Your task to perform on an android device: Go to network settings Image 0: 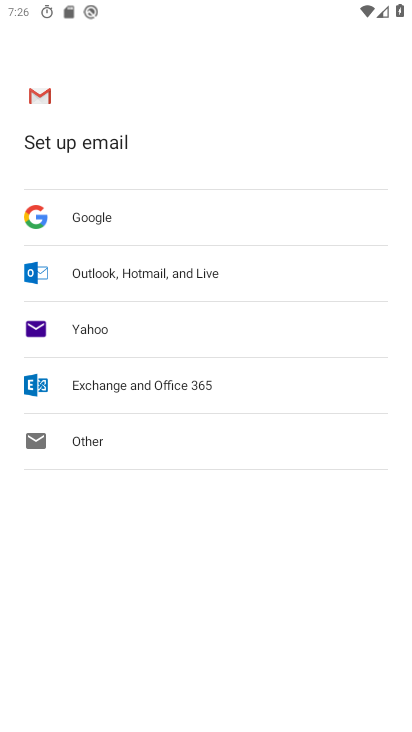
Step 0: press home button
Your task to perform on an android device: Go to network settings Image 1: 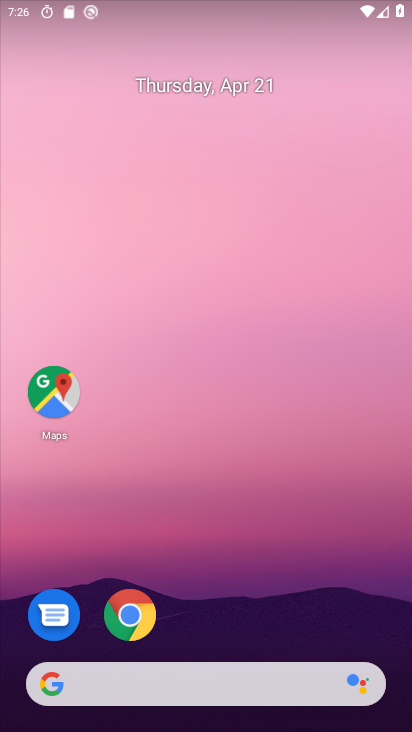
Step 1: drag from (184, 689) to (377, 78)
Your task to perform on an android device: Go to network settings Image 2: 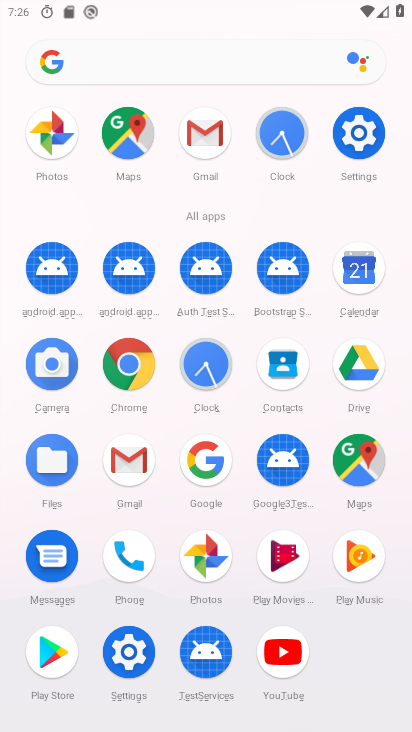
Step 2: click (354, 148)
Your task to perform on an android device: Go to network settings Image 3: 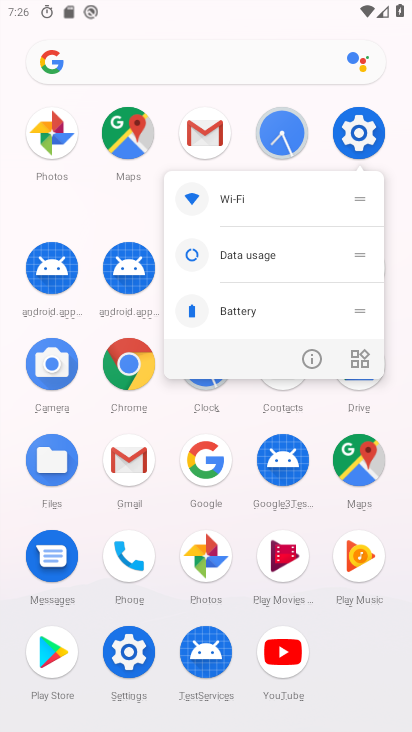
Step 3: click (356, 135)
Your task to perform on an android device: Go to network settings Image 4: 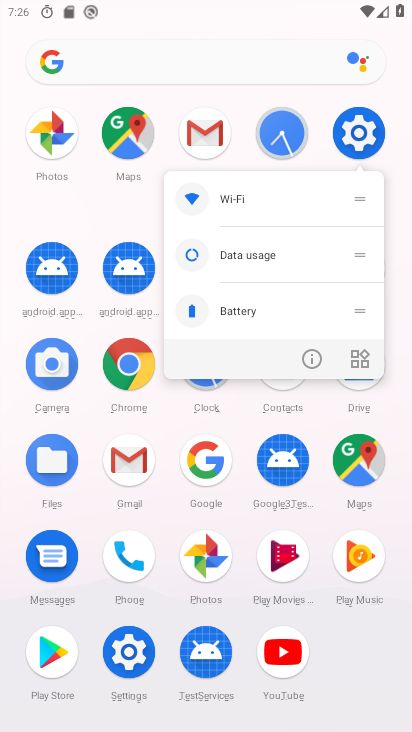
Step 4: click (365, 138)
Your task to perform on an android device: Go to network settings Image 5: 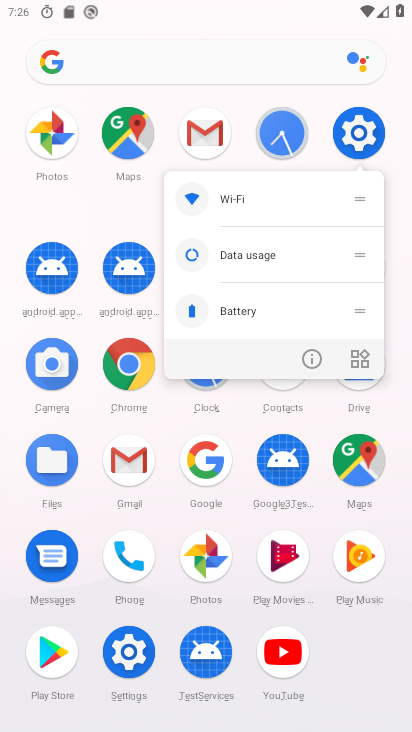
Step 5: click (353, 145)
Your task to perform on an android device: Go to network settings Image 6: 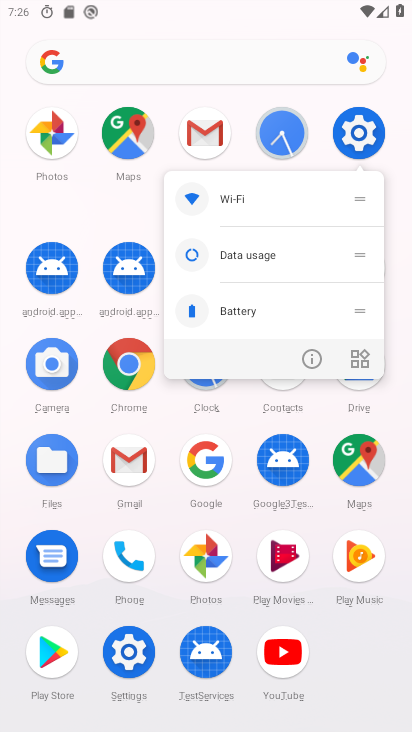
Step 6: click (361, 138)
Your task to perform on an android device: Go to network settings Image 7: 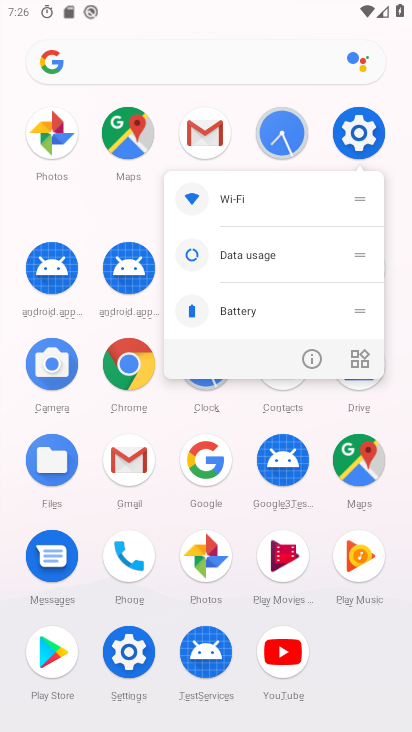
Step 7: click (358, 138)
Your task to perform on an android device: Go to network settings Image 8: 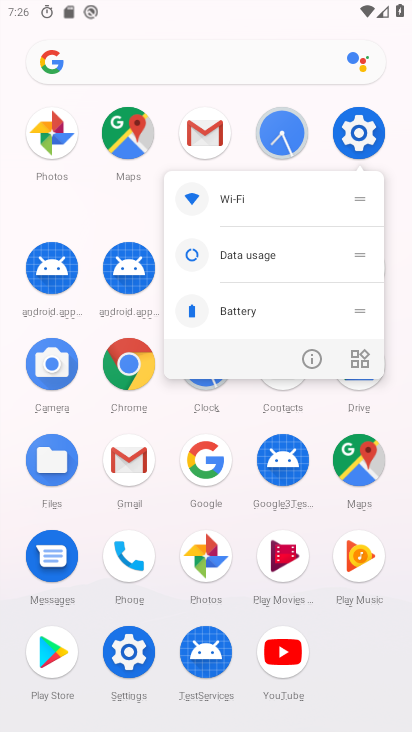
Step 8: click (355, 143)
Your task to perform on an android device: Go to network settings Image 9: 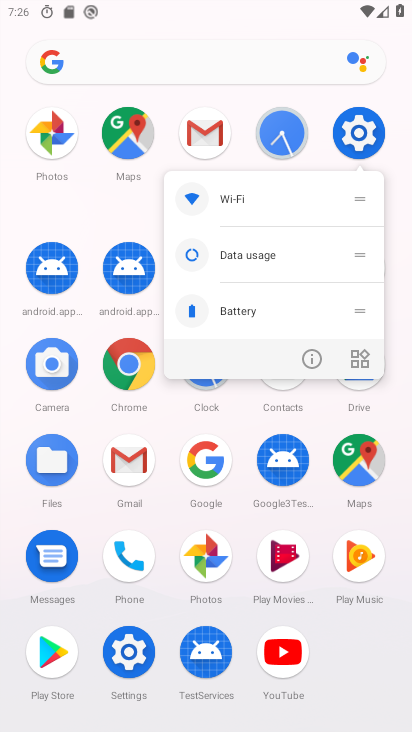
Step 9: click (359, 130)
Your task to perform on an android device: Go to network settings Image 10: 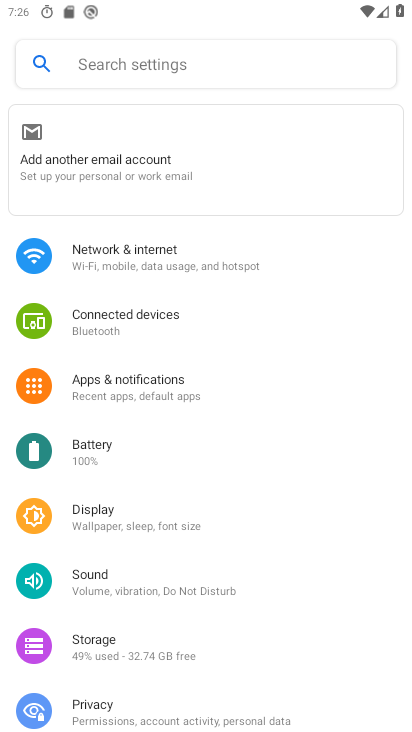
Step 10: click (128, 258)
Your task to perform on an android device: Go to network settings Image 11: 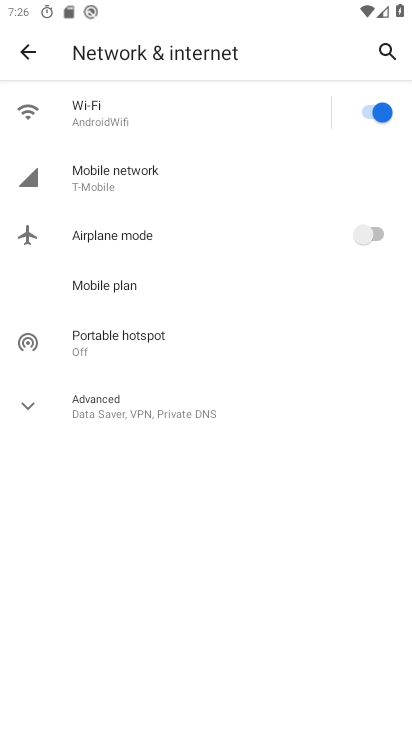
Step 11: click (169, 185)
Your task to perform on an android device: Go to network settings Image 12: 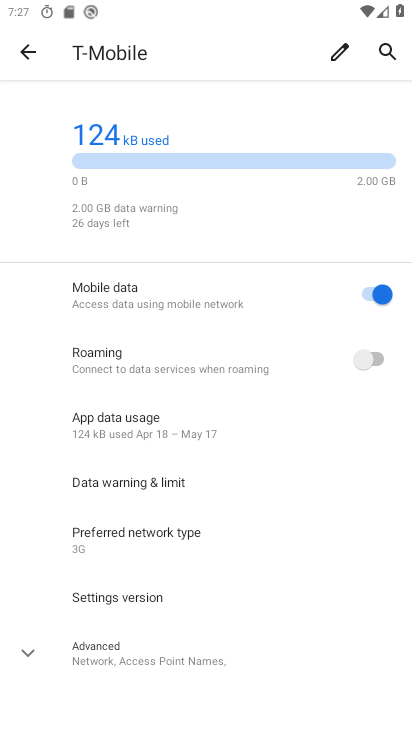
Step 12: task complete